Your task to perform on an android device: Search for pizza restaurants on Maps Image 0: 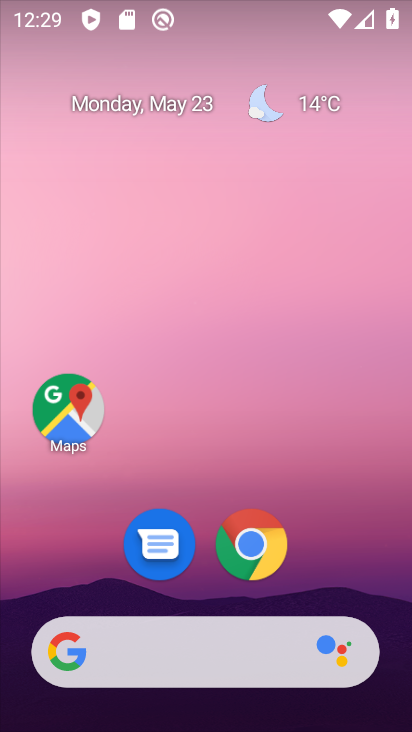
Step 0: click (63, 427)
Your task to perform on an android device: Search for pizza restaurants on Maps Image 1: 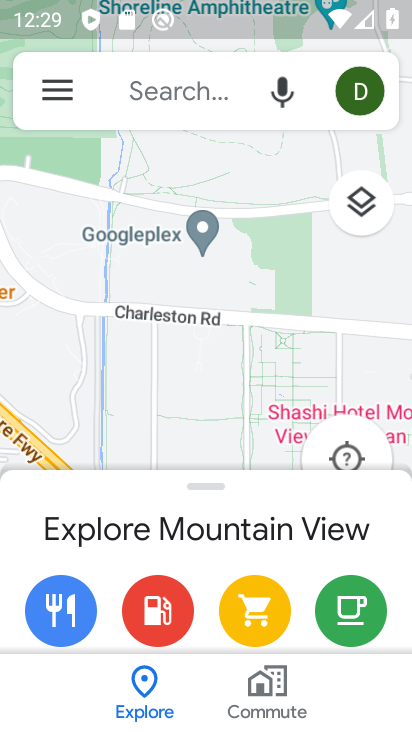
Step 1: click (181, 93)
Your task to perform on an android device: Search for pizza restaurants on Maps Image 2: 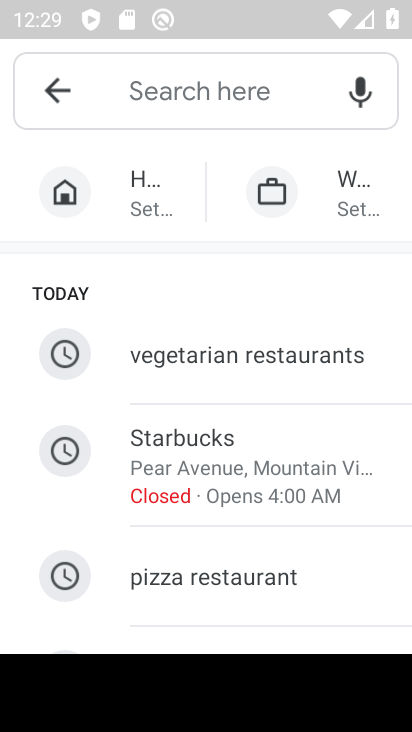
Step 2: click (296, 558)
Your task to perform on an android device: Search for pizza restaurants on Maps Image 3: 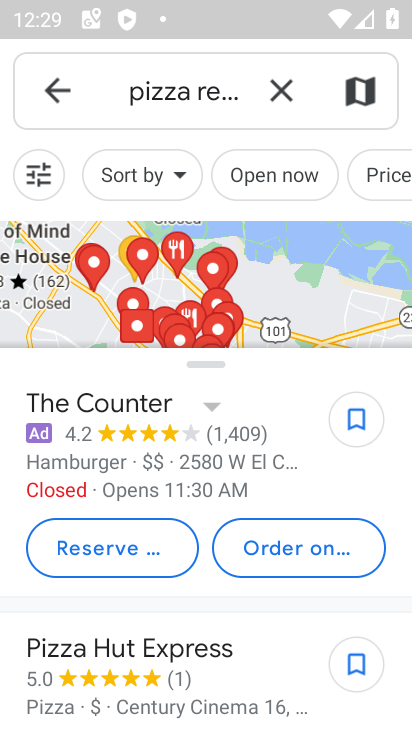
Step 3: task complete